Your task to perform on an android device: Open maps Image 0: 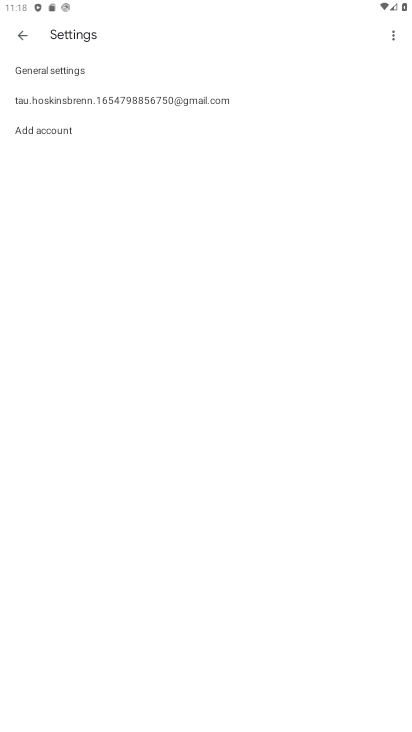
Step 0: press home button
Your task to perform on an android device: Open maps Image 1: 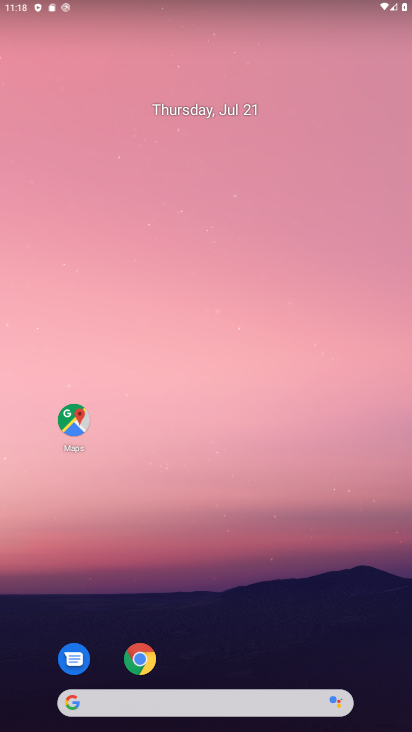
Step 1: click (66, 438)
Your task to perform on an android device: Open maps Image 2: 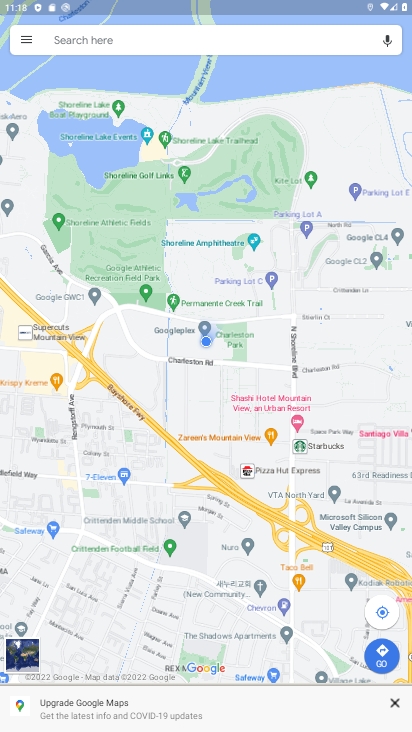
Step 2: task complete